Your task to perform on an android device: Turn on the flashlight Image 0: 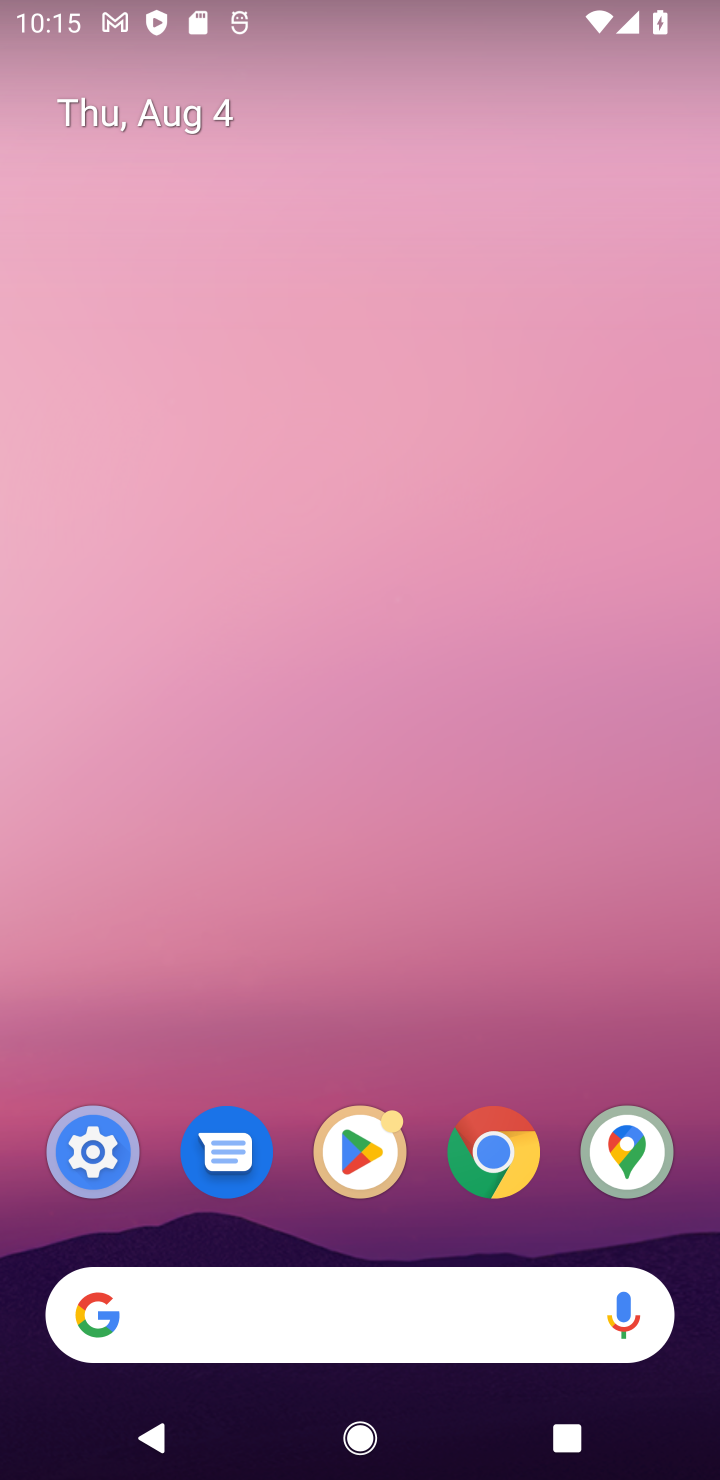
Step 0: click (93, 1158)
Your task to perform on an android device: Turn on the flashlight Image 1: 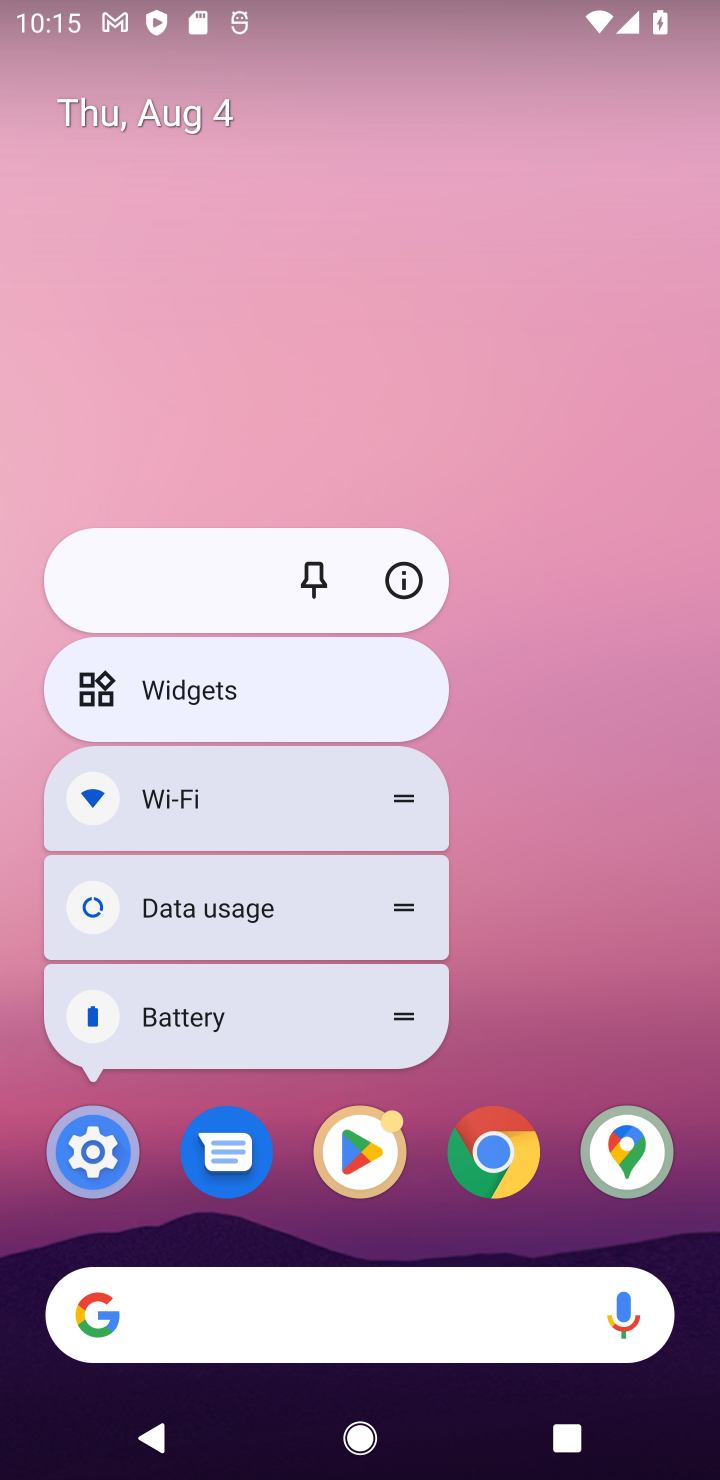
Step 1: click (70, 1171)
Your task to perform on an android device: Turn on the flashlight Image 2: 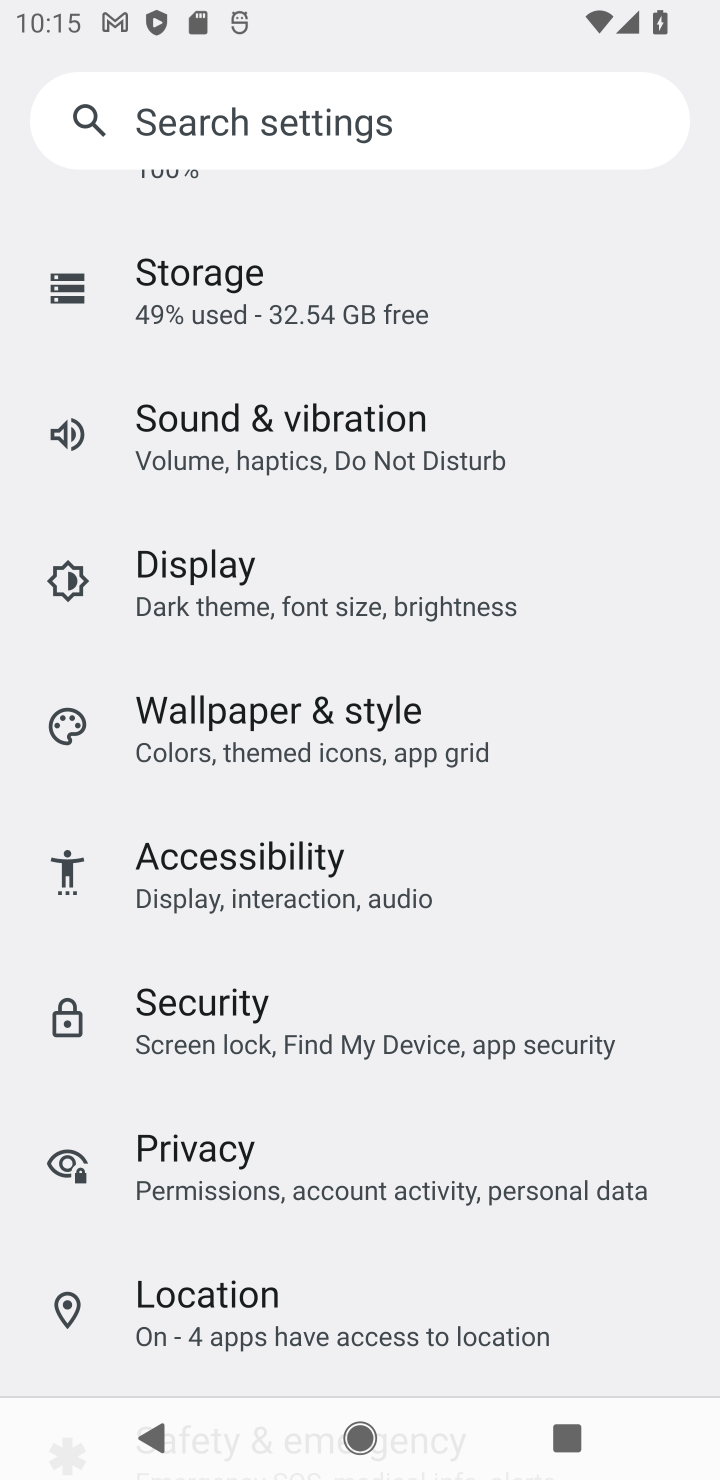
Step 2: click (345, 115)
Your task to perform on an android device: Turn on the flashlight Image 3: 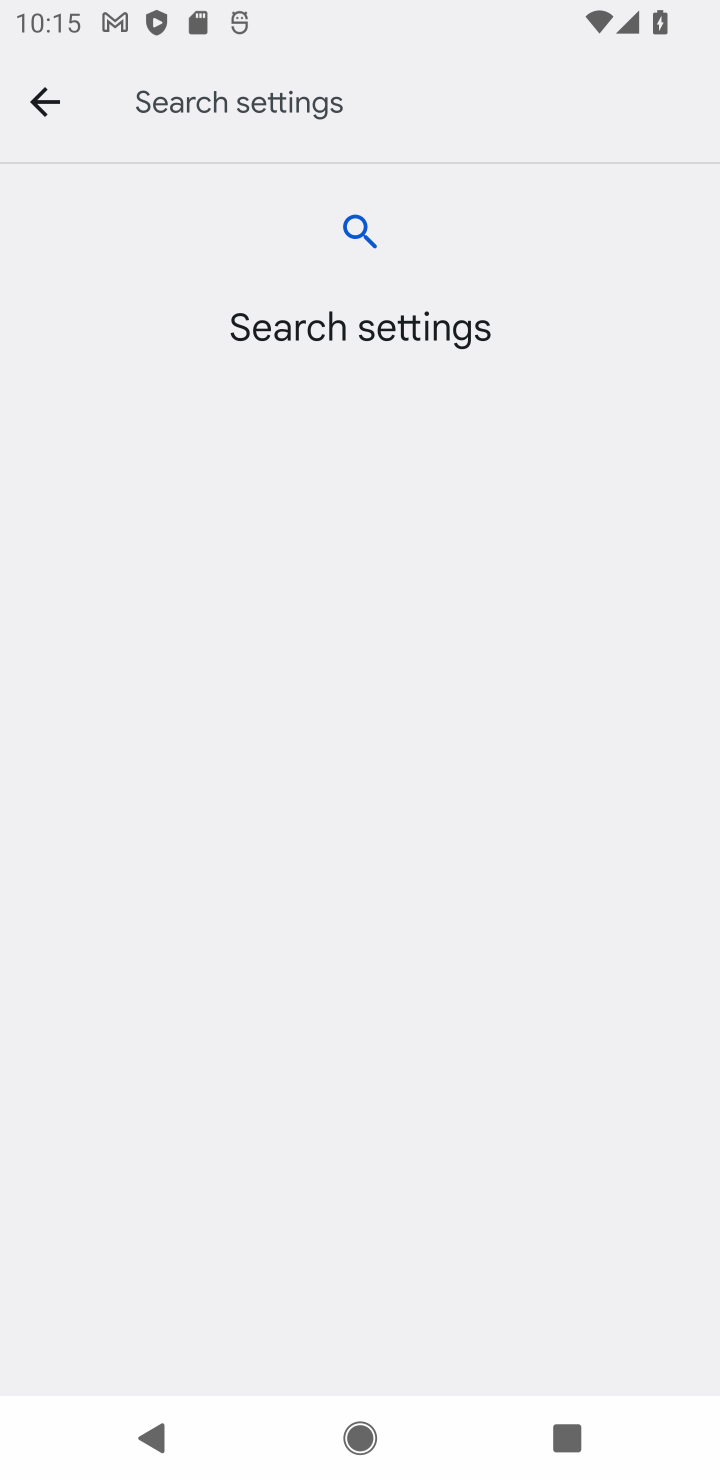
Step 3: type "flashlight"
Your task to perform on an android device: Turn on the flashlight Image 4: 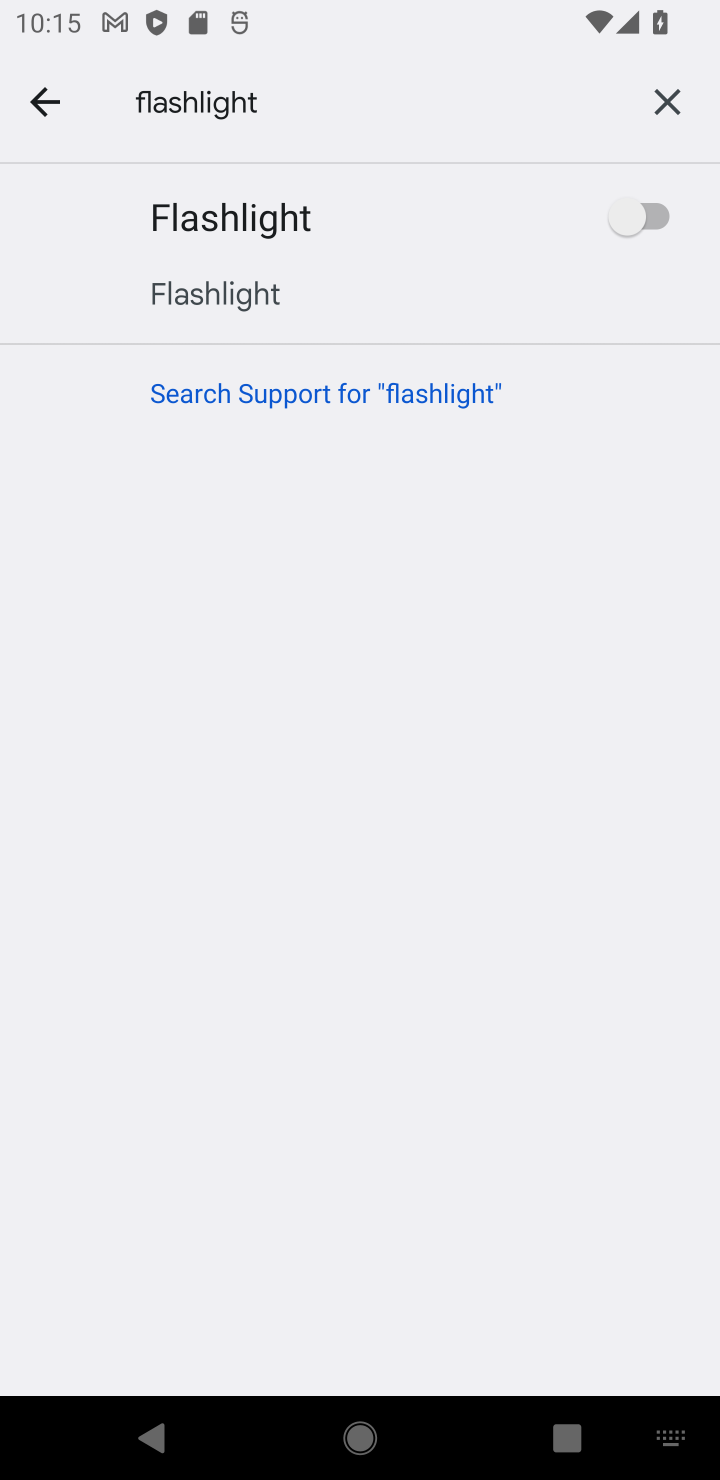
Step 4: click (688, 205)
Your task to perform on an android device: Turn on the flashlight Image 5: 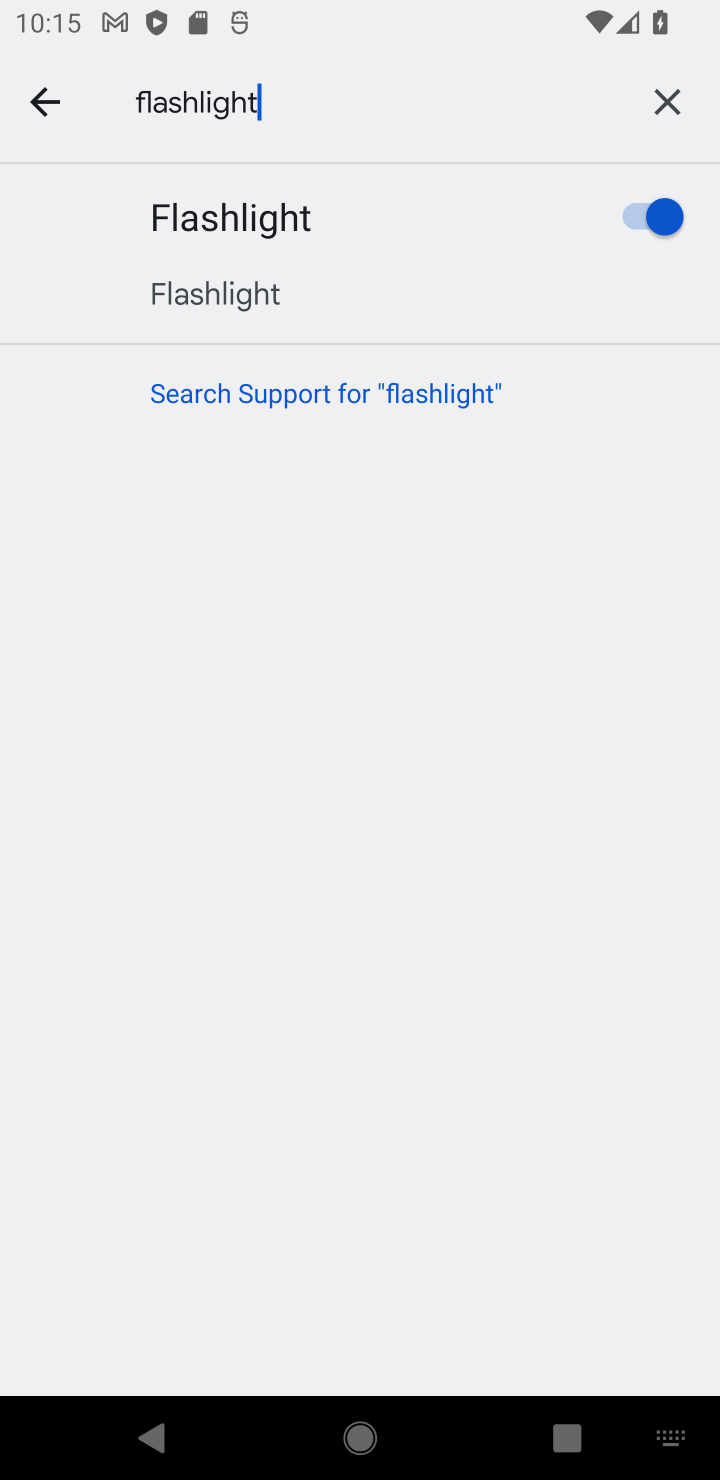
Step 5: task complete